Your task to perform on an android device: open a bookmark in the chrome app Image 0: 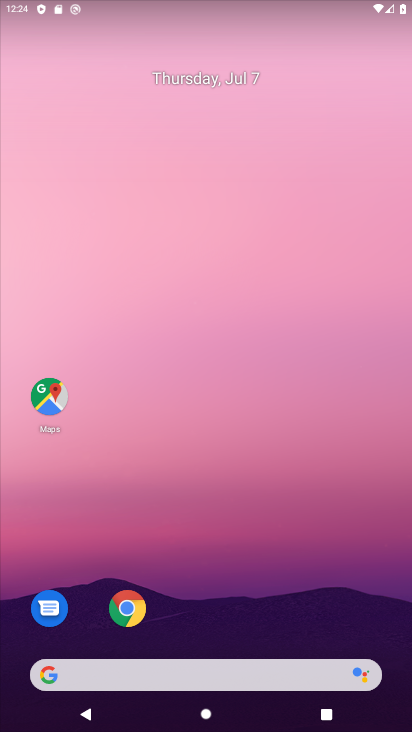
Step 0: click (127, 602)
Your task to perform on an android device: open a bookmark in the chrome app Image 1: 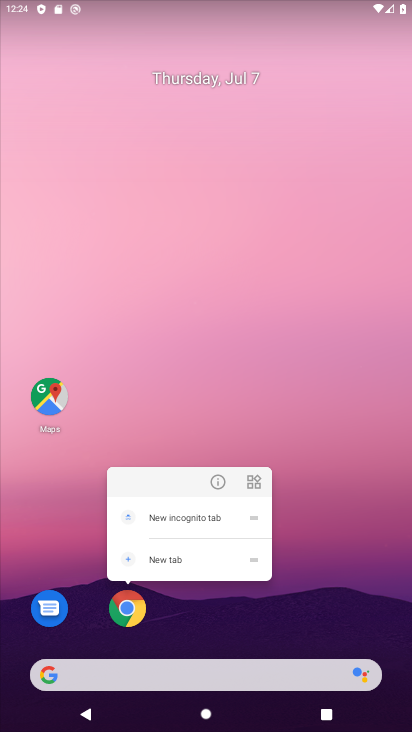
Step 1: click (128, 622)
Your task to perform on an android device: open a bookmark in the chrome app Image 2: 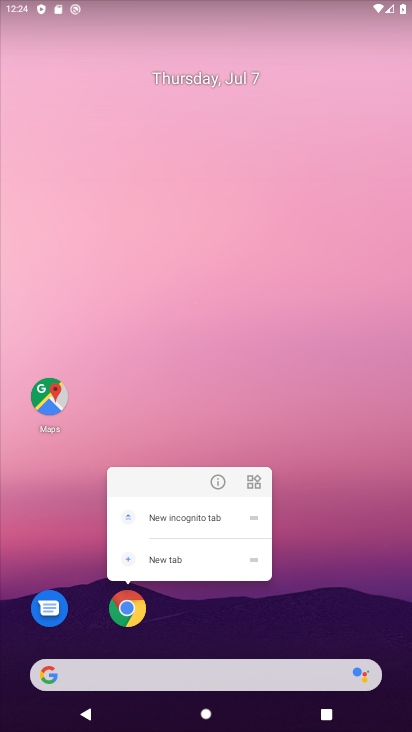
Step 2: click (129, 611)
Your task to perform on an android device: open a bookmark in the chrome app Image 3: 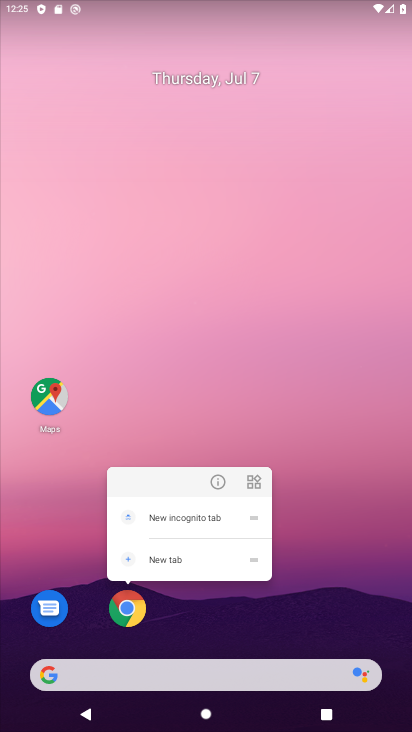
Step 3: click (126, 604)
Your task to perform on an android device: open a bookmark in the chrome app Image 4: 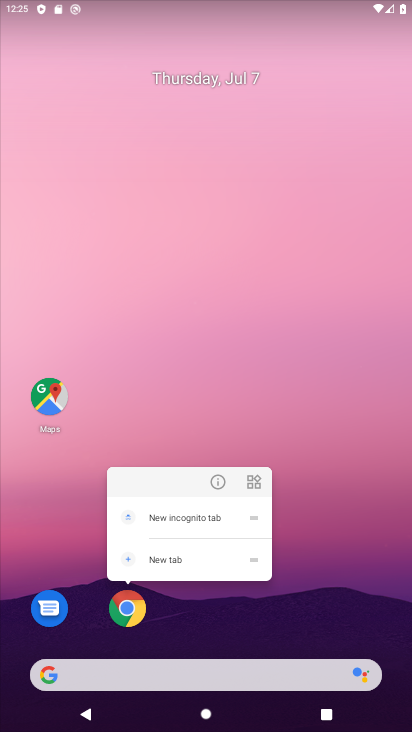
Step 4: click (127, 603)
Your task to perform on an android device: open a bookmark in the chrome app Image 5: 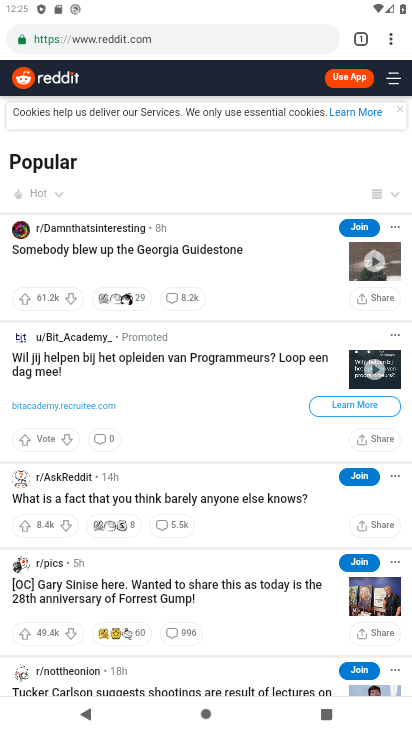
Step 5: task complete